Your task to perform on an android device: Toggle the flashlight Image 0: 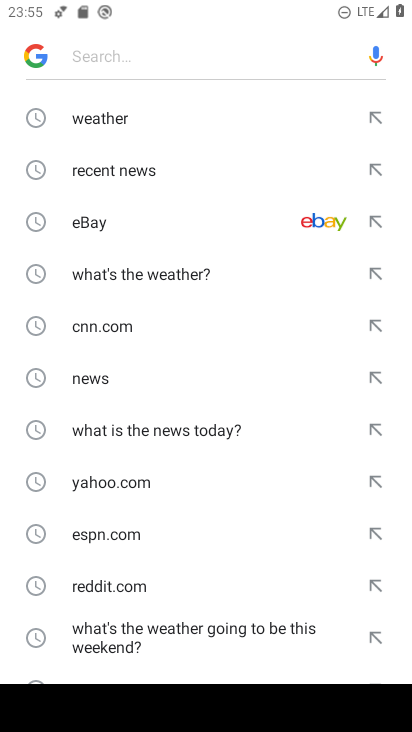
Step 0: press home button
Your task to perform on an android device: Toggle the flashlight Image 1: 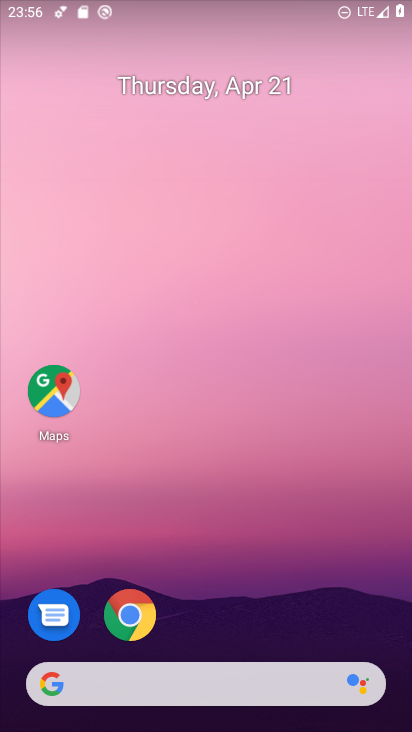
Step 1: drag from (223, 647) to (266, 49)
Your task to perform on an android device: Toggle the flashlight Image 2: 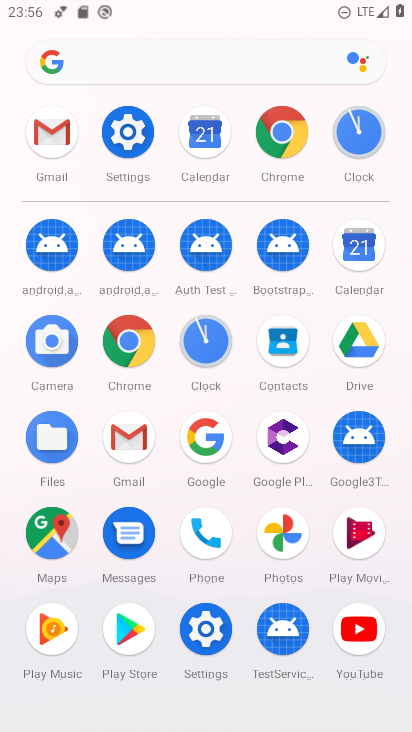
Step 2: click (127, 127)
Your task to perform on an android device: Toggle the flashlight Image 3: 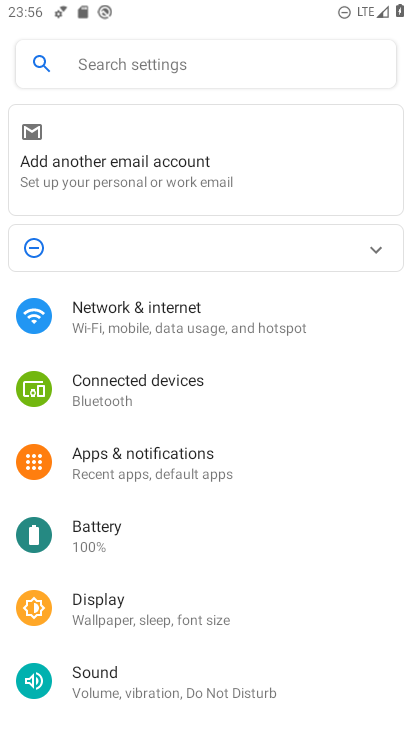
Step 3: click (140, 69)
Your task to perform on an android device: Toggle the flashlight Image 4: 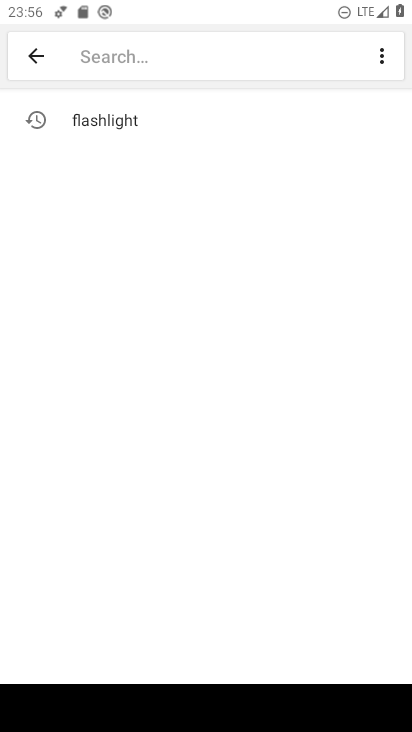
Step 4: click (137, 122)
Your task to perform on an android device: Toggle the flashlight Image 5: 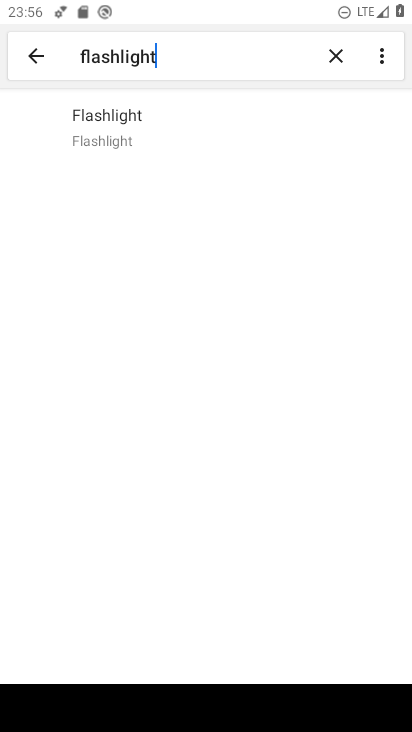
Step 5: click (148, 128)
Your task to perform on an android device: Toggle the flashlight Image 6: 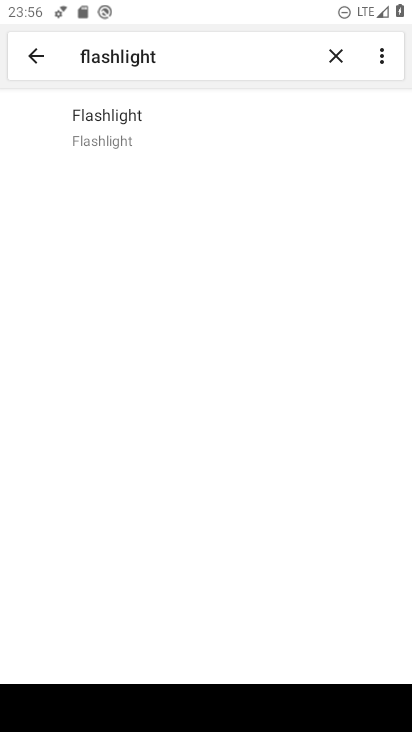
Step 6: task complete